Your task to perform on an android device: remove spam from my inbox in the gmail app Image 0: 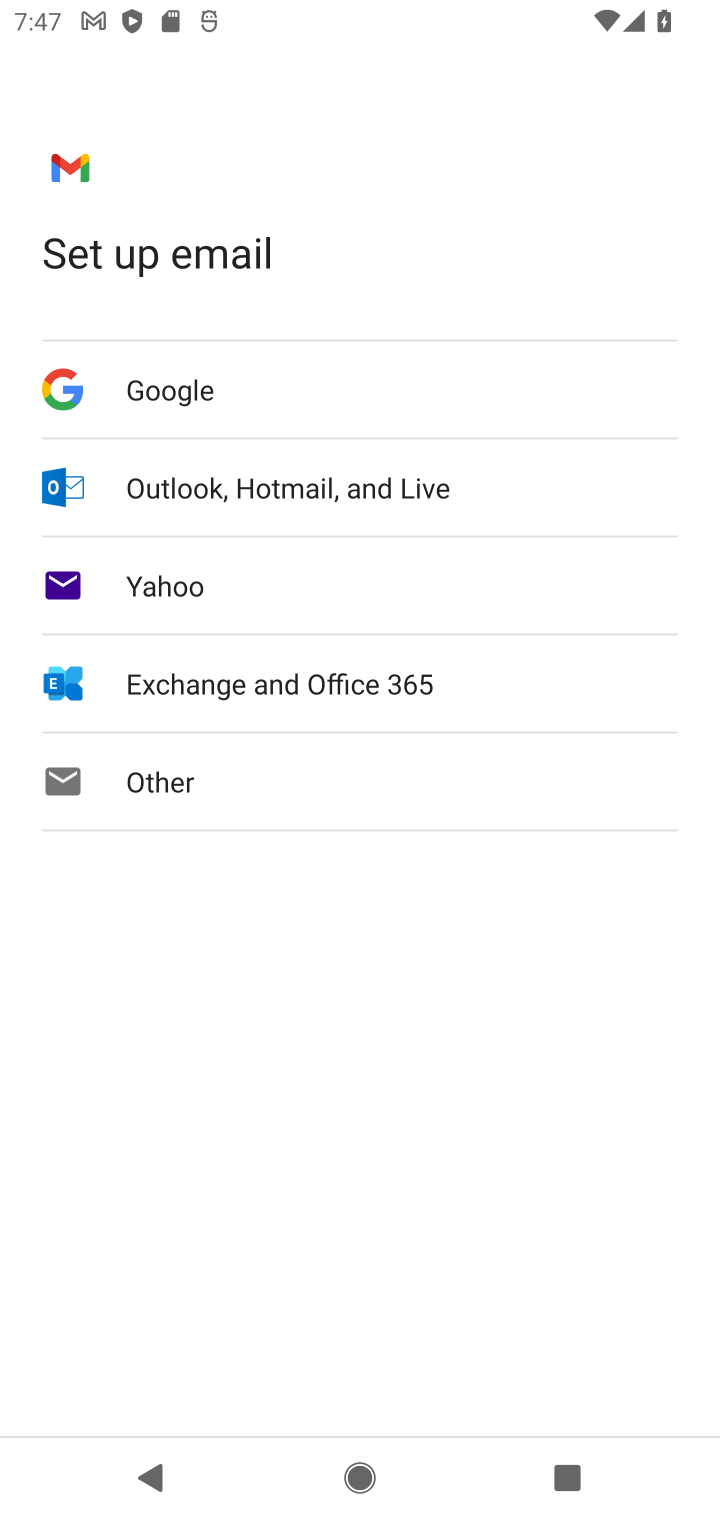
Step 0: press home button
Your task to perform on an android device: remove spam from my inbox in the gmail app Image 1: 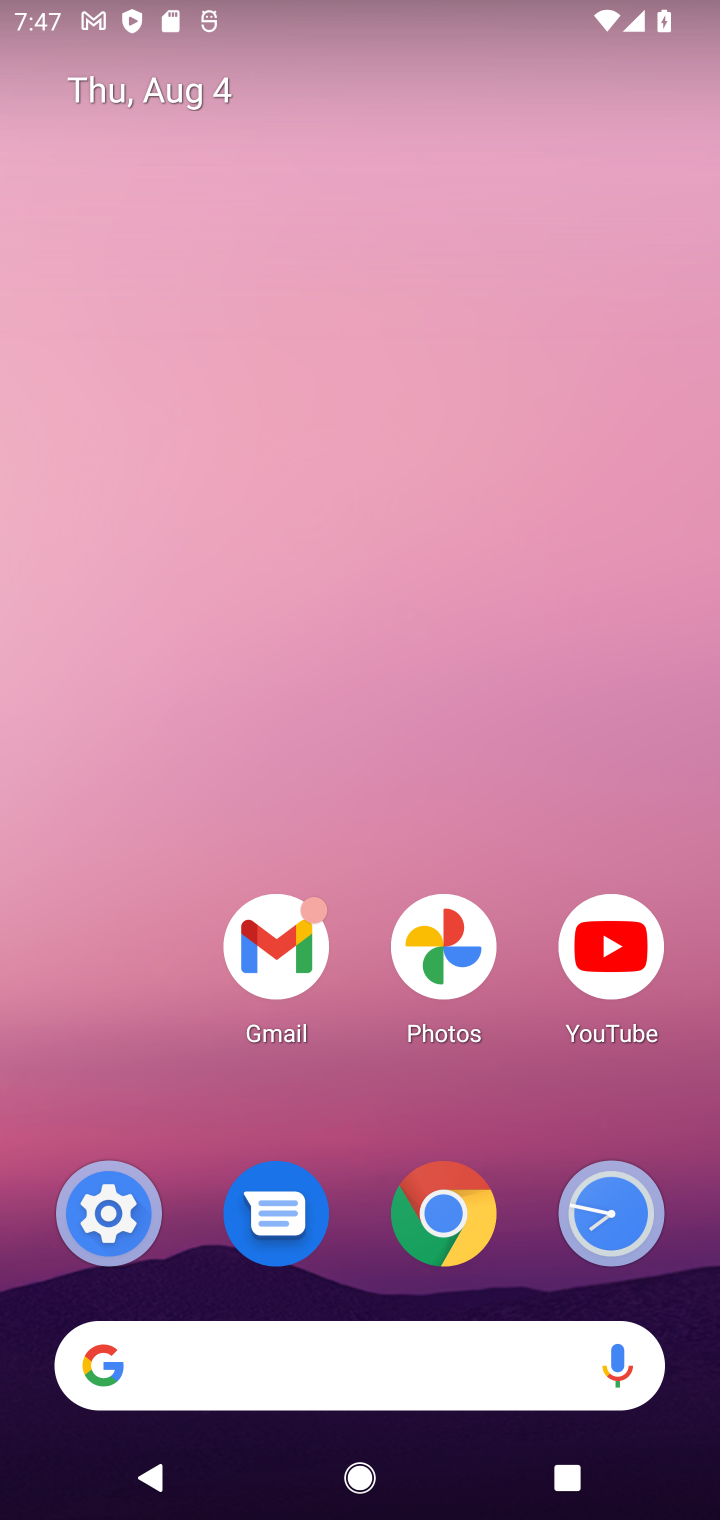
Step 1: click (330, 976)
Your task to perform on an android device: remove spam from my inbox in the gmail app Image 2: 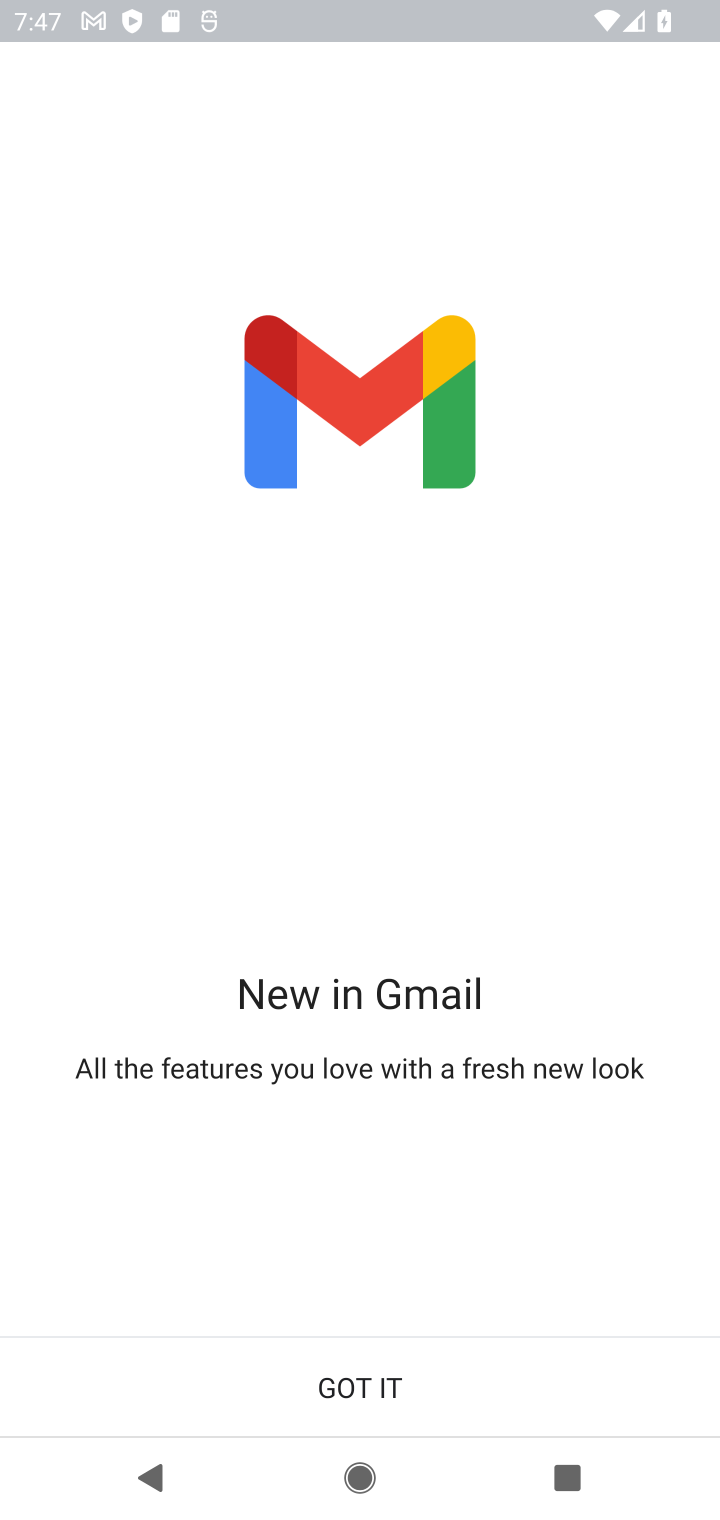
Step 2: click (358, 1406)
Your task to perform on an android device: remove spam from my inbox in the gmail app Image 3: 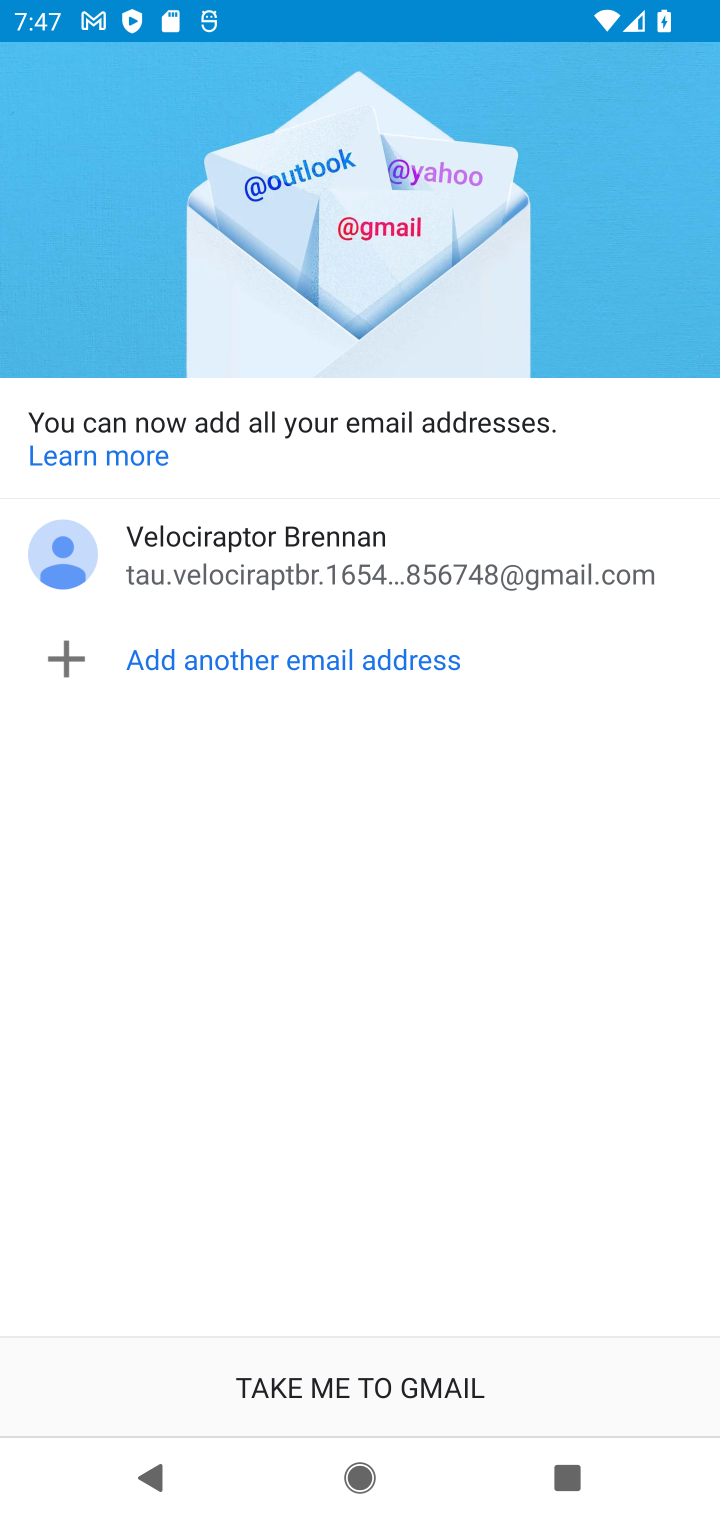
Step 3: click (358, 1406)
Your task to perform on an android device: remove spam from my inbox in the gmail app Image 4: 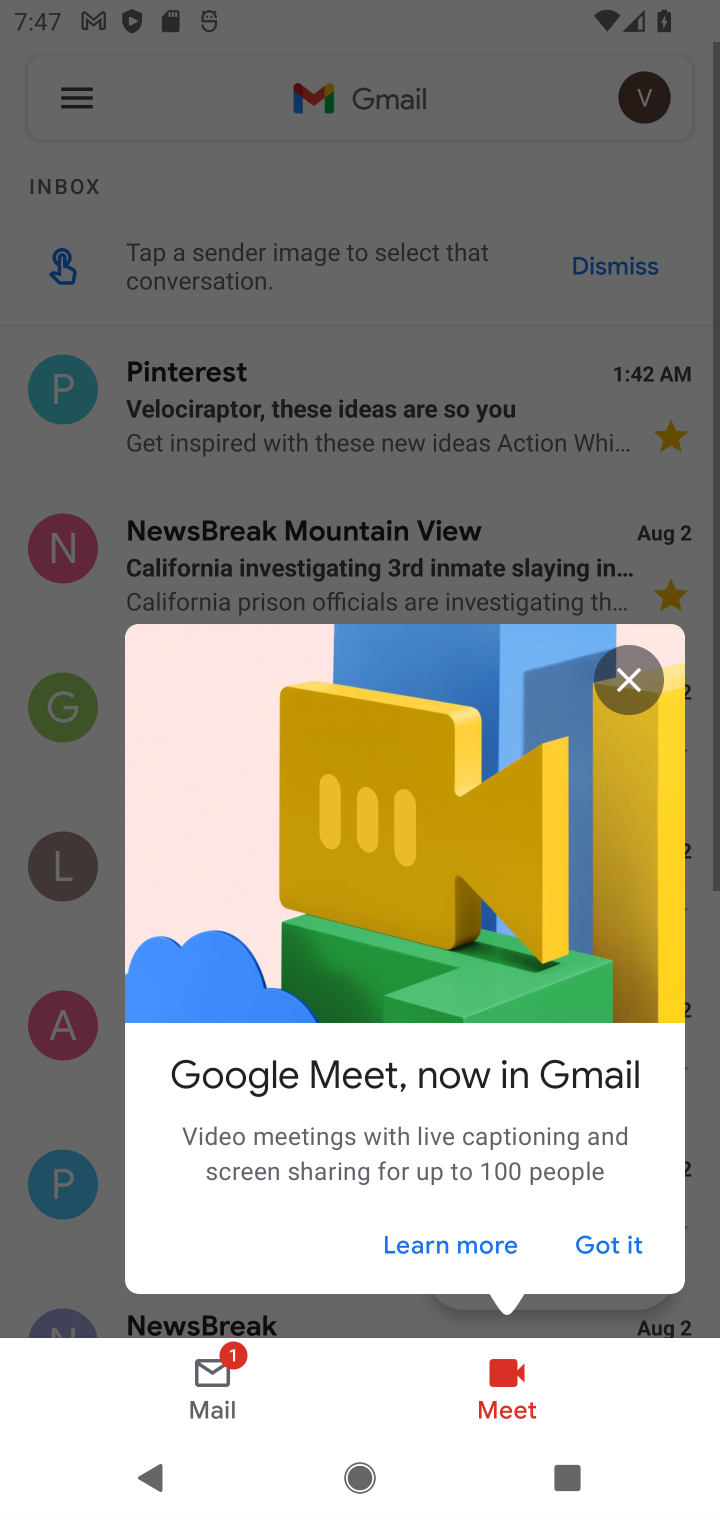
Step 4: task complete